Your task to perform on an android device: Open ESPN.com Image 0: 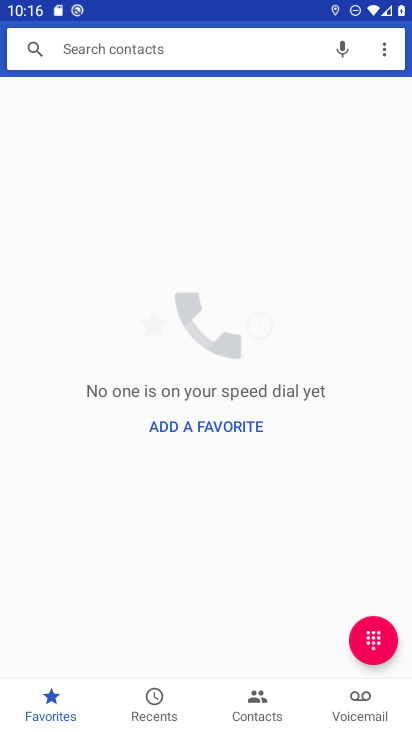
Step 0: press home button
Your task to perform on an android device: Open ESPN.com Image 1: 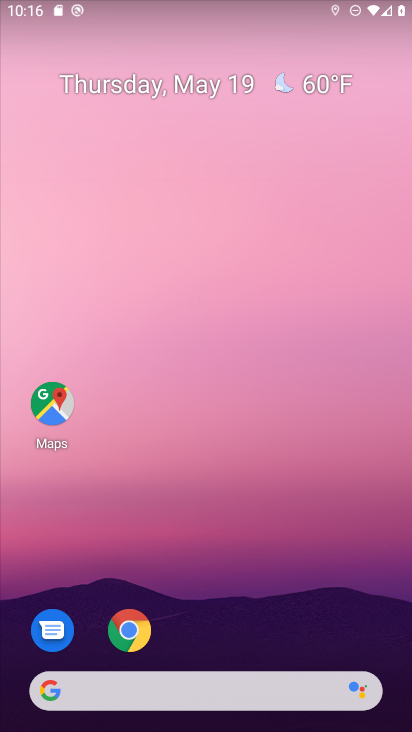
Step 1: click (127, 628)
Your task to perform on an android device: Open ESPN.com Image 2: 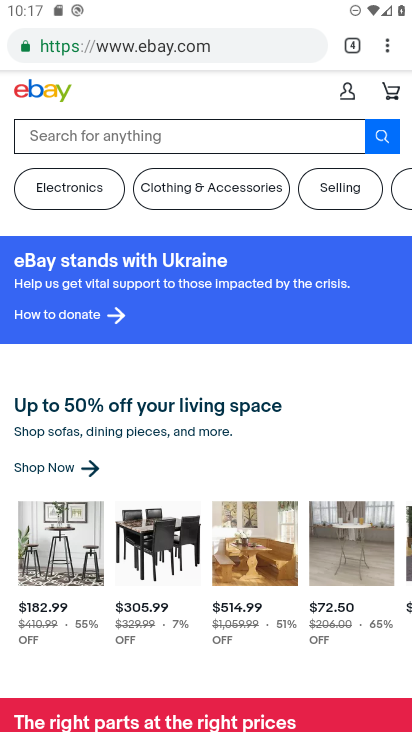
Step 2: click (391, 48)
Your task to perform on an android device: Open ESPN.com Image 3: 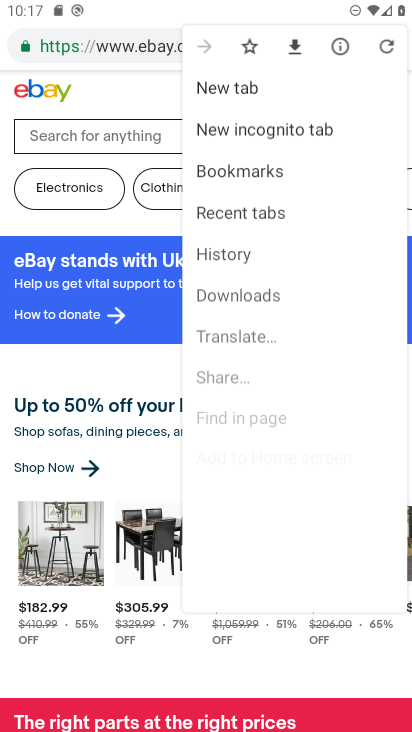
Step 3: click (387, 43)
Your task to perform on an android device: Open ESPN.com Image 4: 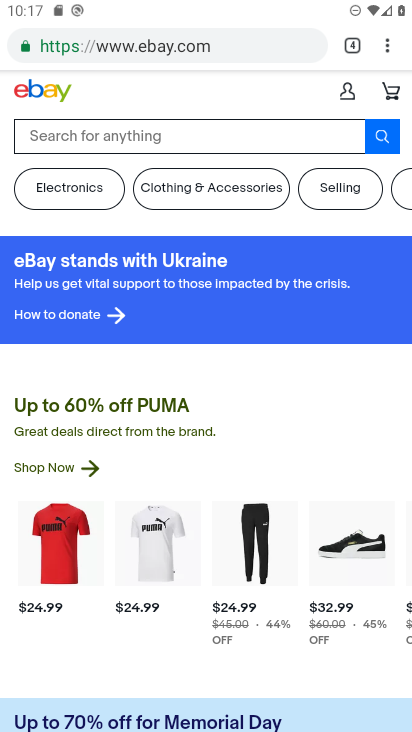
Step 4: click (391, 54)
Your task to perform on an android device: Open ESPN.com Image 5: 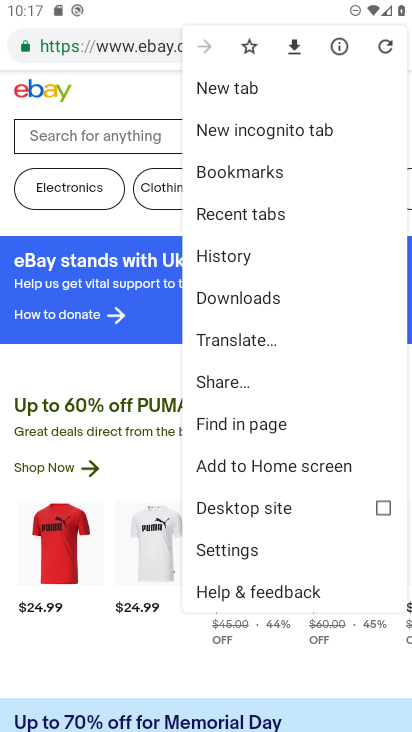
Step 5: click (222, 84)
Your task to perform on an android device: Open ESPN.com Image 6: 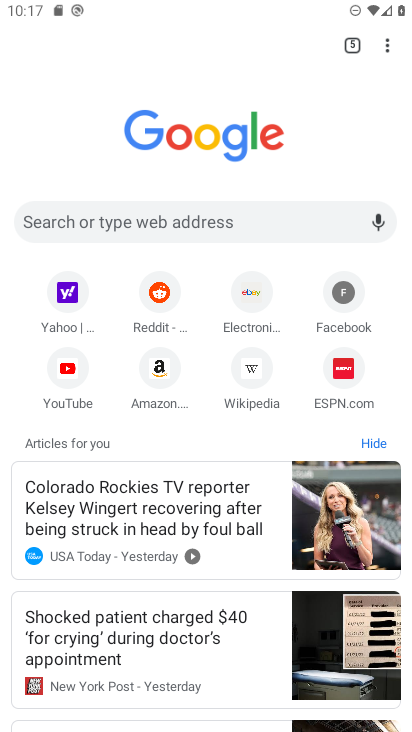
Step 6: click (213, 217)
Your task to perform on an android device: Open ESPN.com Image 7: 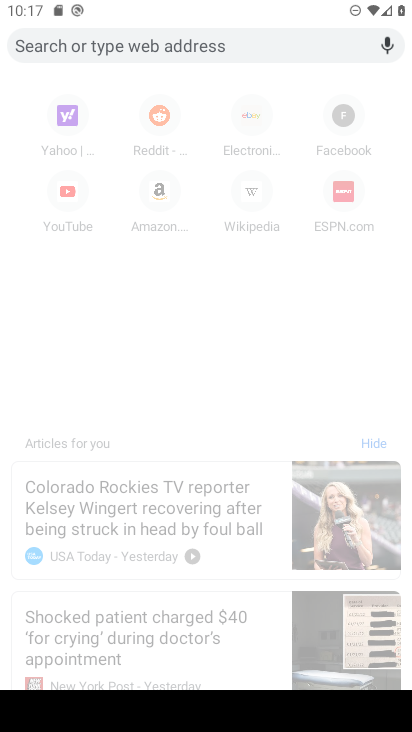
Step 7: type "espn.com"
Your task to perform on an android device: Open ESPN.com Image 8: 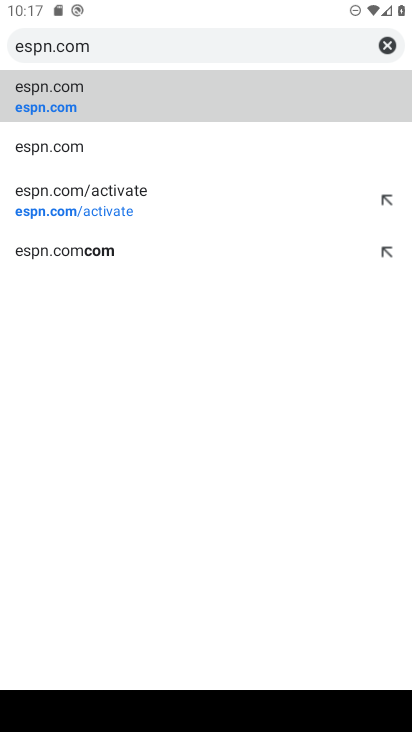
Step 8: click (116, 100)
Your task to perform on an android device: Open ESPN.com Image 9: 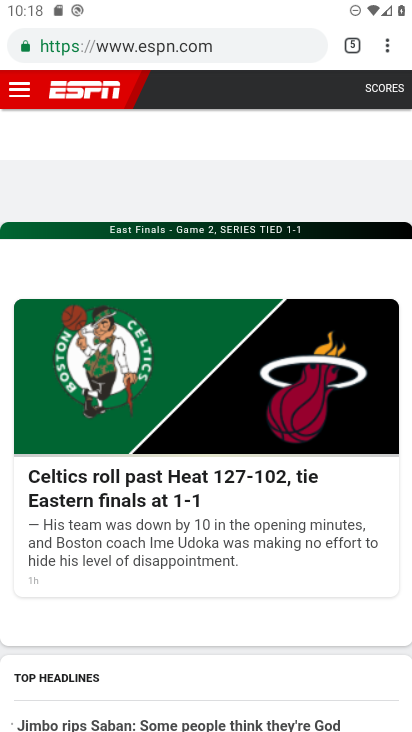
Step 9: task complete